Your task to perform on an android device: Show me popular videos on Youtube Image 0: 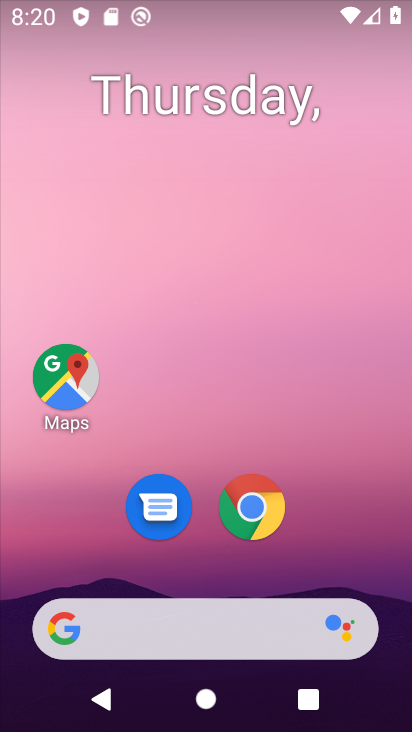
Step 0: drag from (211, 561) to (253, 12)
Your task to perform on an android device: Show me popular videos on Youtube Image 1: 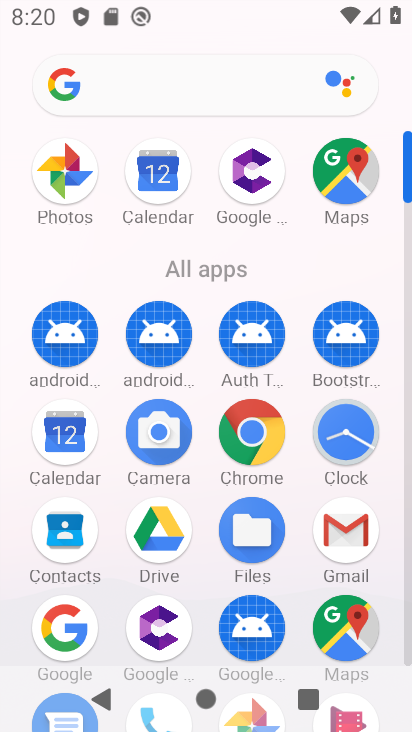
Step 1: drag from (205, 566) to (230, 264)
Your task to perform on an android device: Show me popular videos on Youtube Image 2: 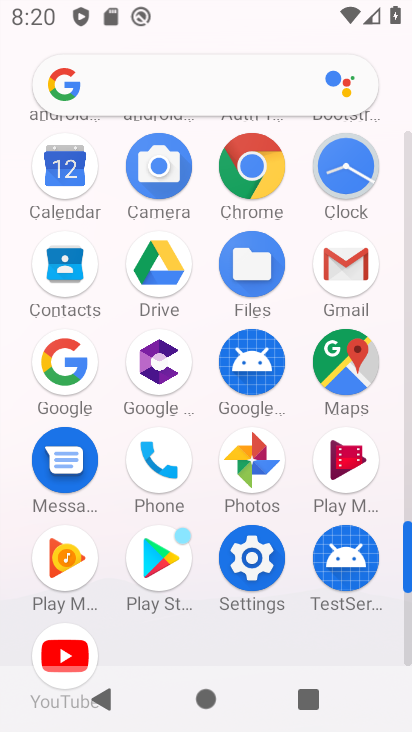
Step 2: click (60, 647)
Your task to perform on an android device: Show me popular videos on Youtube Image 3: 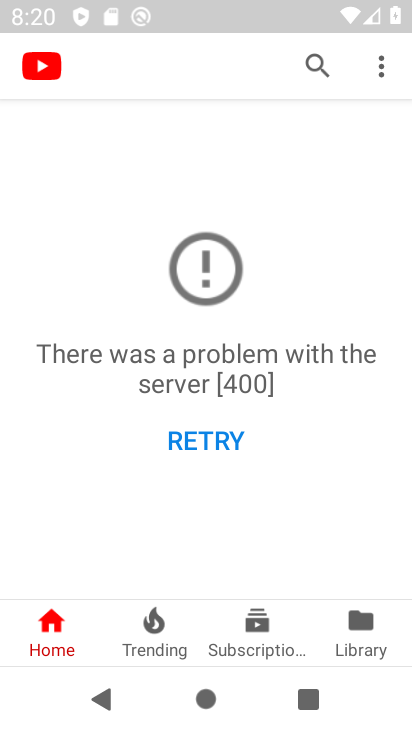
Step 3: click (211, 419)
Your task to perform on an android device: Show me popular videos on Youtube Image 4: 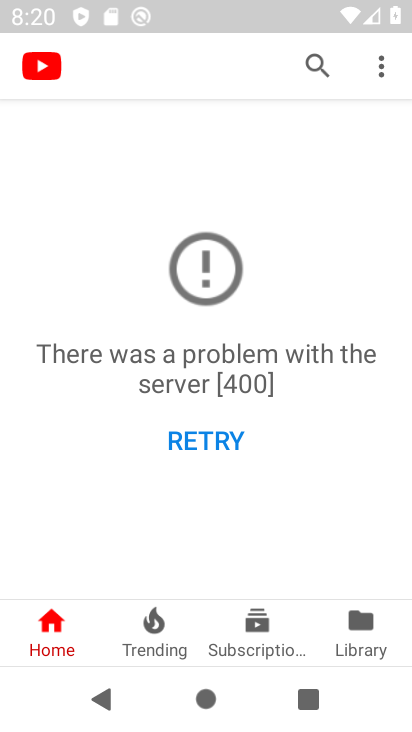
Step 4: click (210, 429)
Your task to perform on an android device: Show me popular videos on Youtube Image 5: 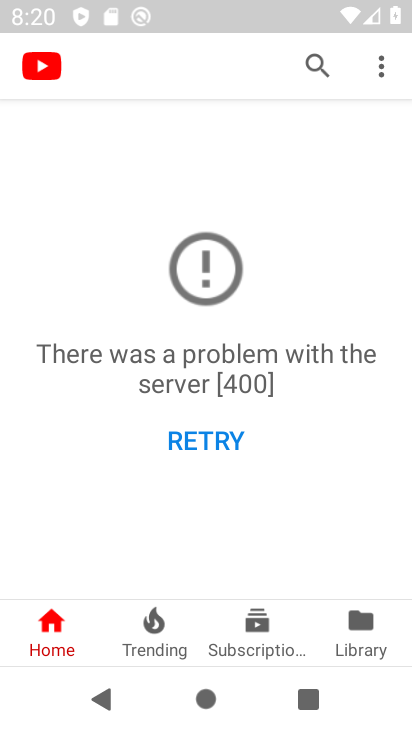
Step 5: task complete